Your task to perform on an android device: Add macbook to the cart on newegg.com Image 0: 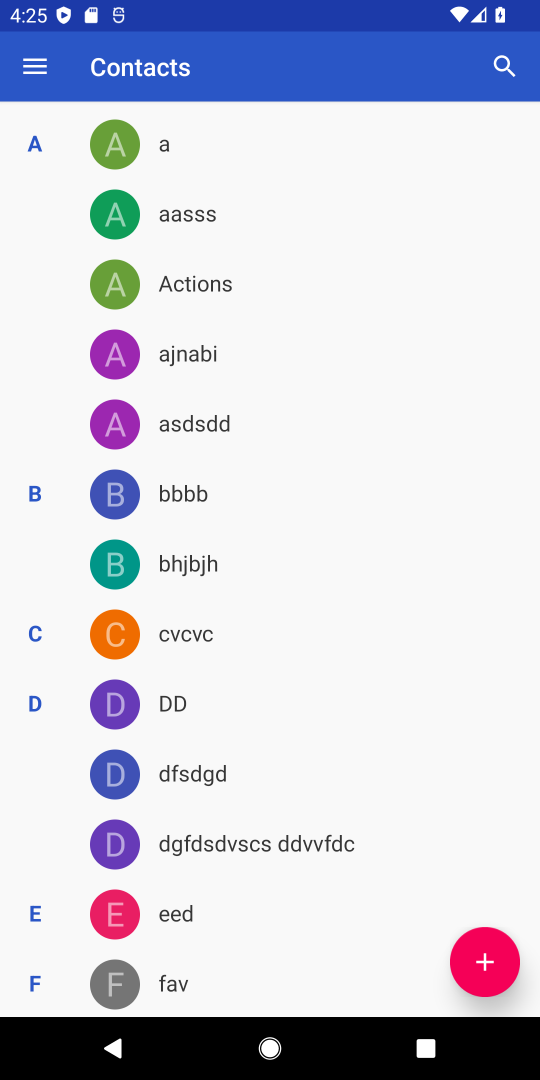
Step 0: press home button
Your task to perform on an android device: Add macbook to the cart on newegg.com Image 1: 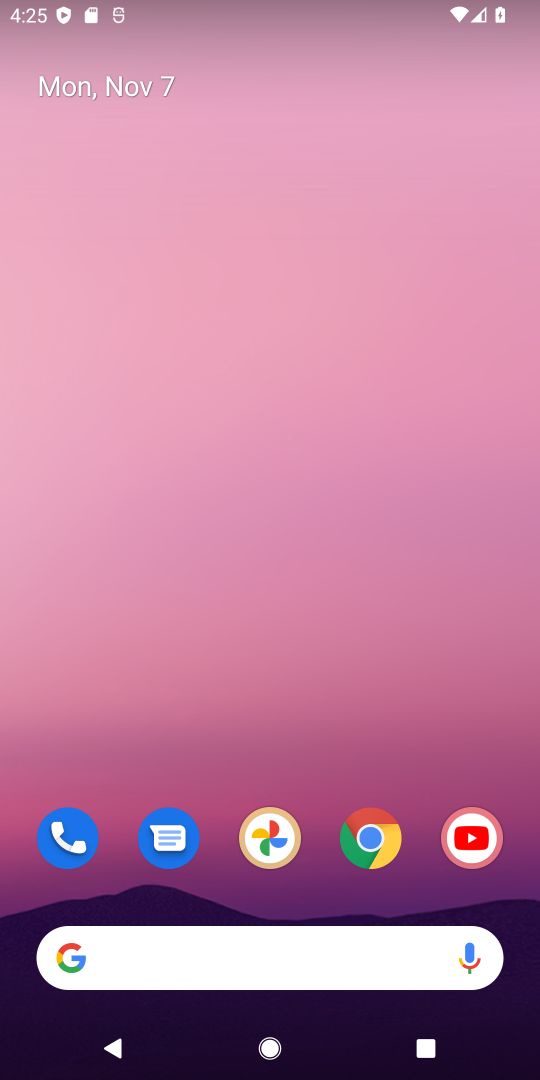
Step 1: click (378, 830)
Your task to perform on an android device: Add macbook to the cart on newegg.com Image 2: 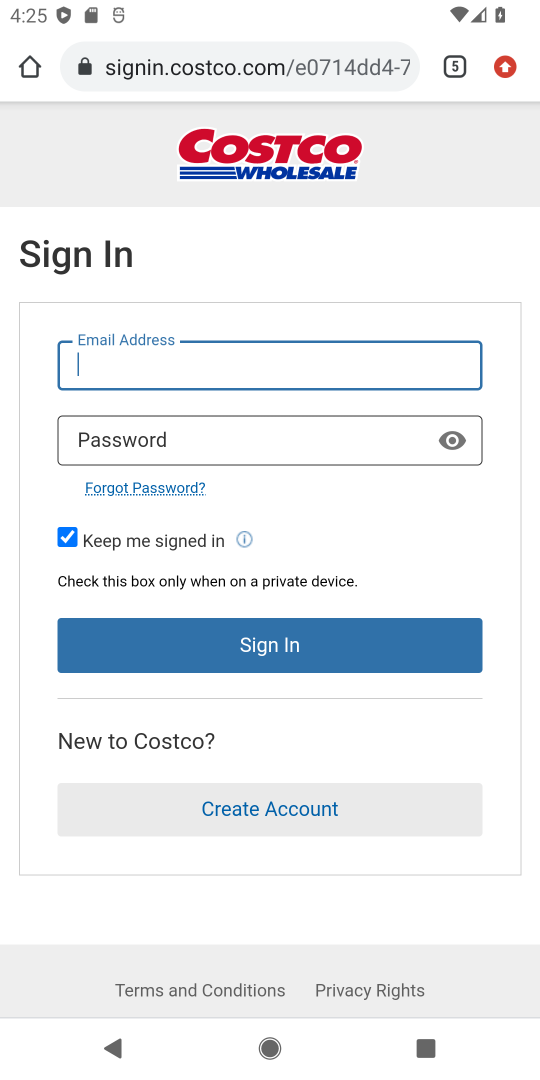
Step 2: click (460, 74)
Your task to perform on an android device: Add macbook to the cart on newegg.com Image 3: 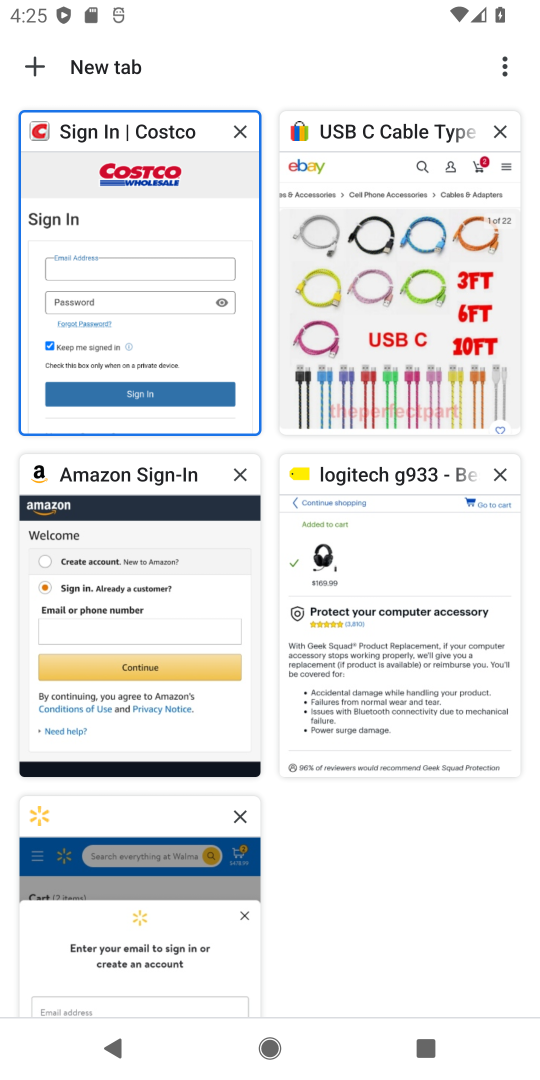
Step 3: click (27, 56)
Your task to perform on an android device: Add macbook to the cart on newegg.com Image 4: 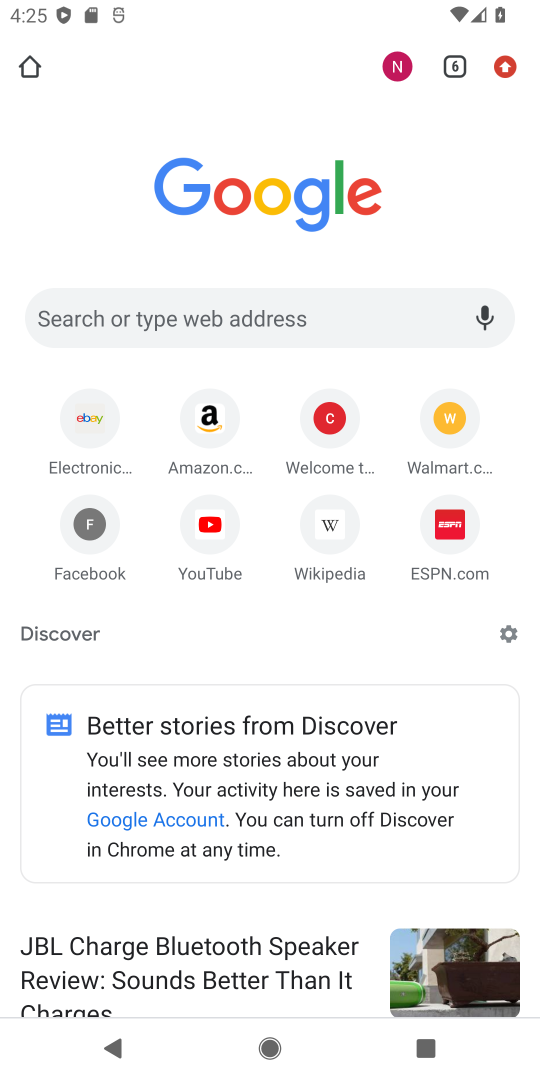
Step 4: click (277, 329)
Your task to perform on an android device: Add macbook to the cart on newegg.com Image 5: 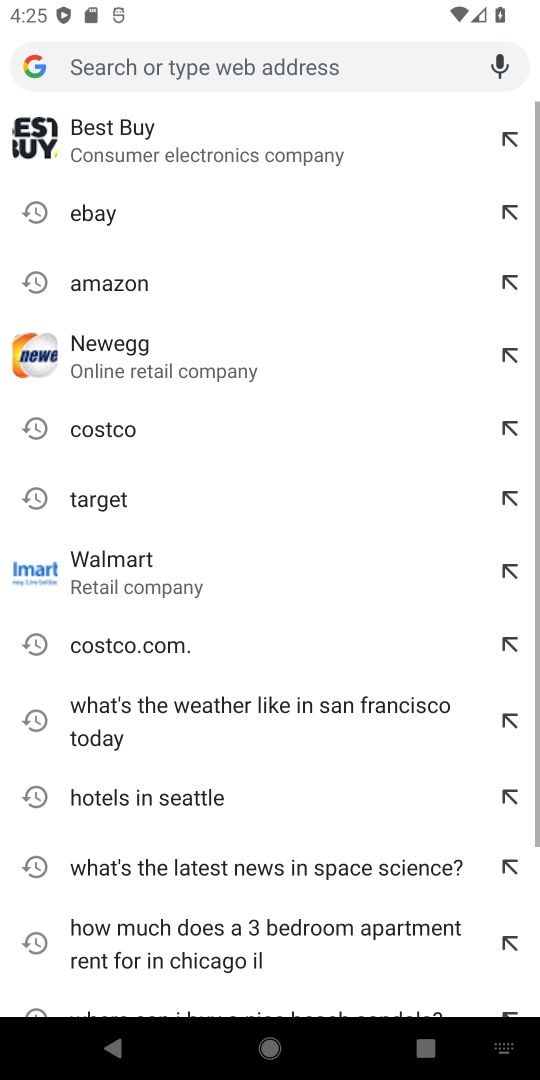
Step 5: type "newegg"
Your task to perform on an android device: Add macbook to the cart on newegg.com Image 6: 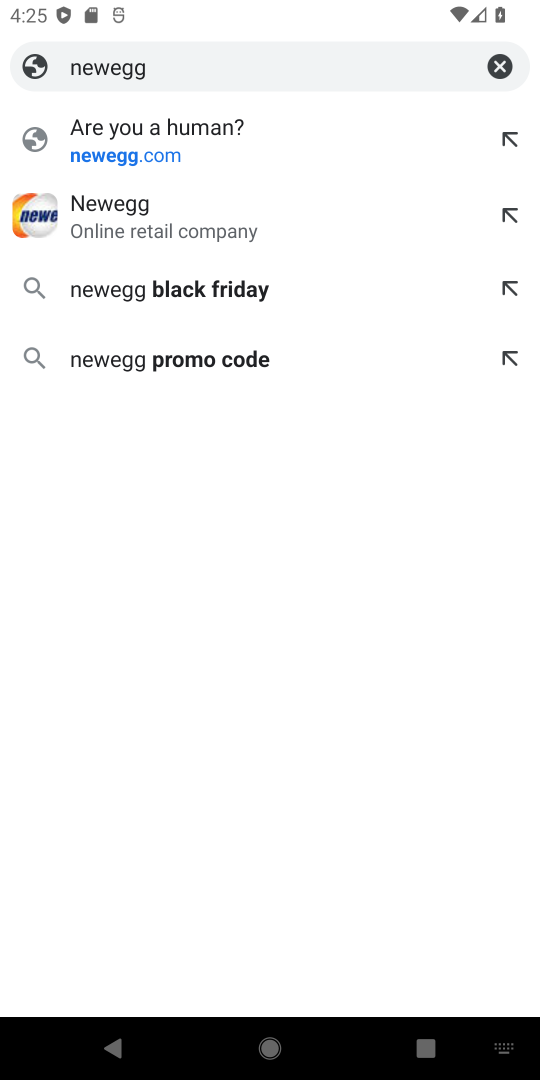
Step 6: click (145, 234)
Your task to perform on an android device: Add macbook to the cart on newegg.com Image 7: 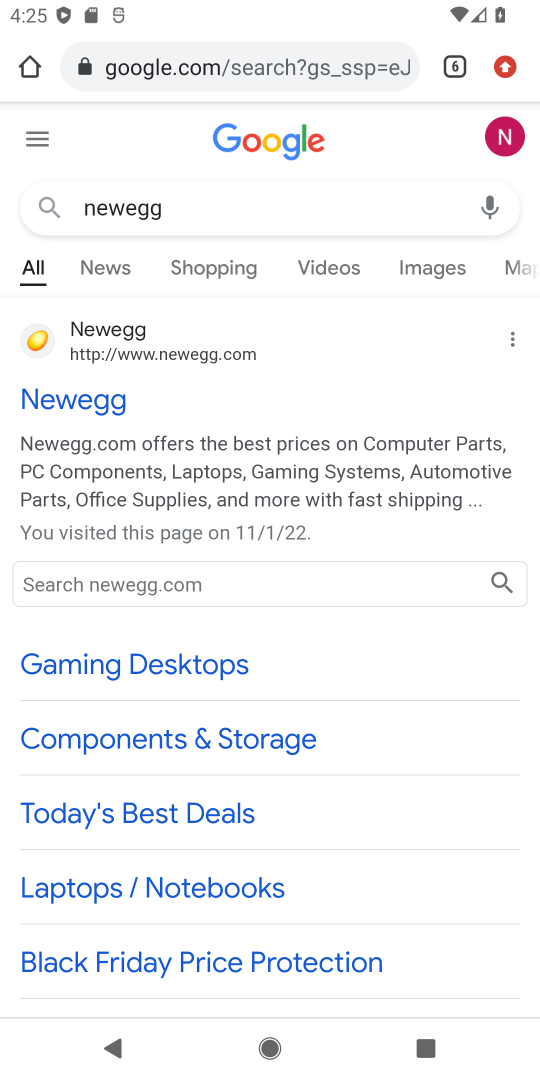
Step 7: click (110, 582)
Your task to perform on an android device: Add macbook to the cart on newegg.com Image 8: 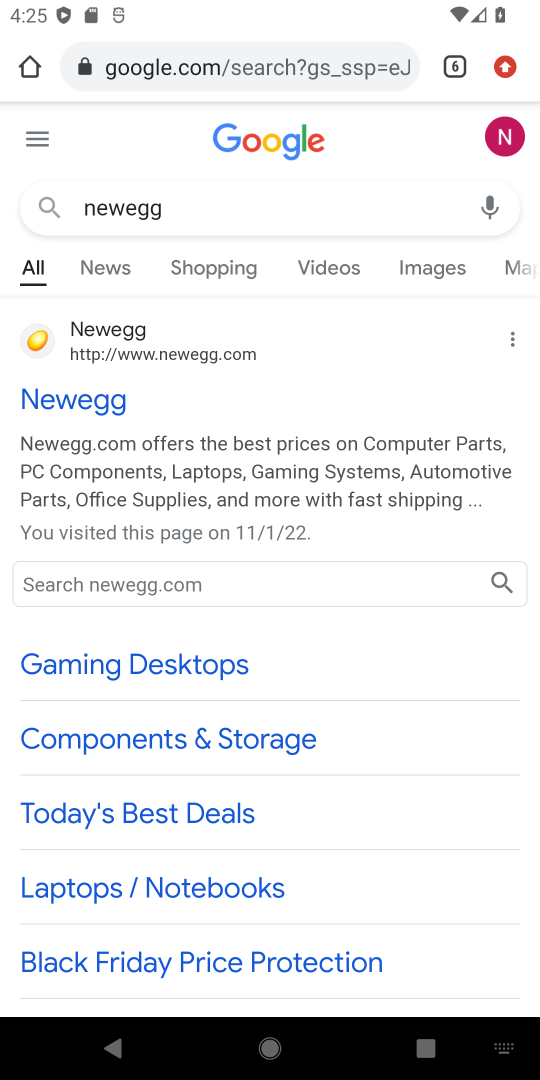
Step 8: type "macbook"
Your task to perform on an android device: Add macbook to the cart on newegg.com Image 9: 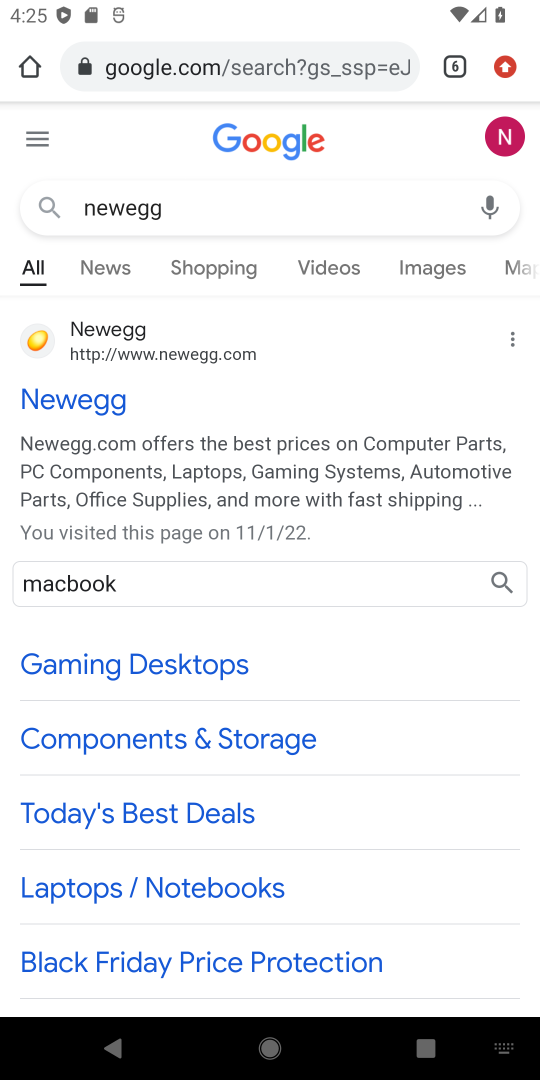
Step 9: click (496, 578)
Your task to perform on an android device: Add macbook to the cart on newegg.com Image 10: 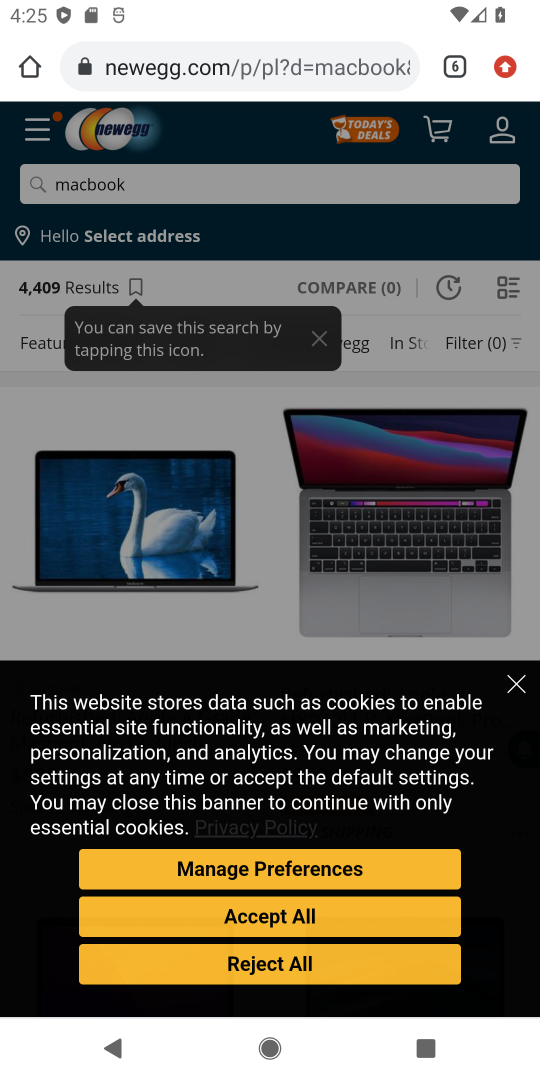
Step 10: click (143, 719)
Your task to perform on an android device: Add macbook to the cart on newegg.com Image 11: 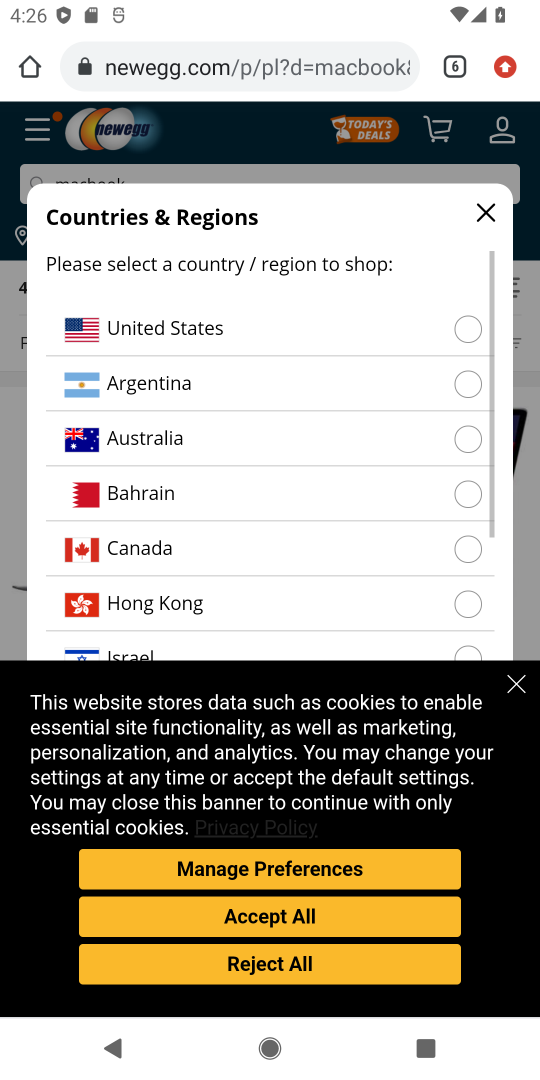
Step 11: click (518, 678)
Your task to perform on an android device: Add macbook to the cart on newegg.com Image 12: 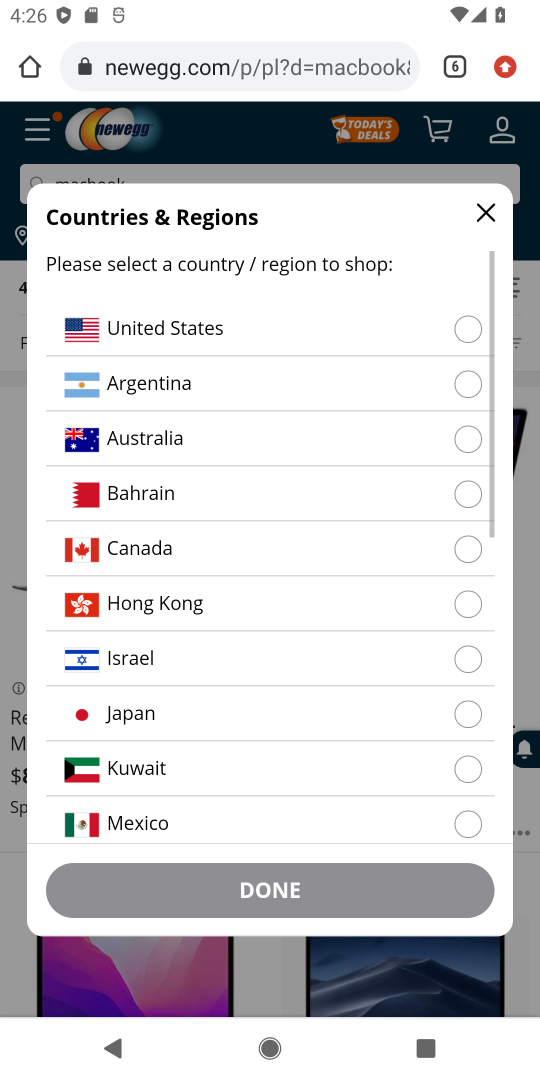
Step 12: click (472, 326)
Your task to perform on an android device: Add macbook to the cart on newegg.com Image 13: 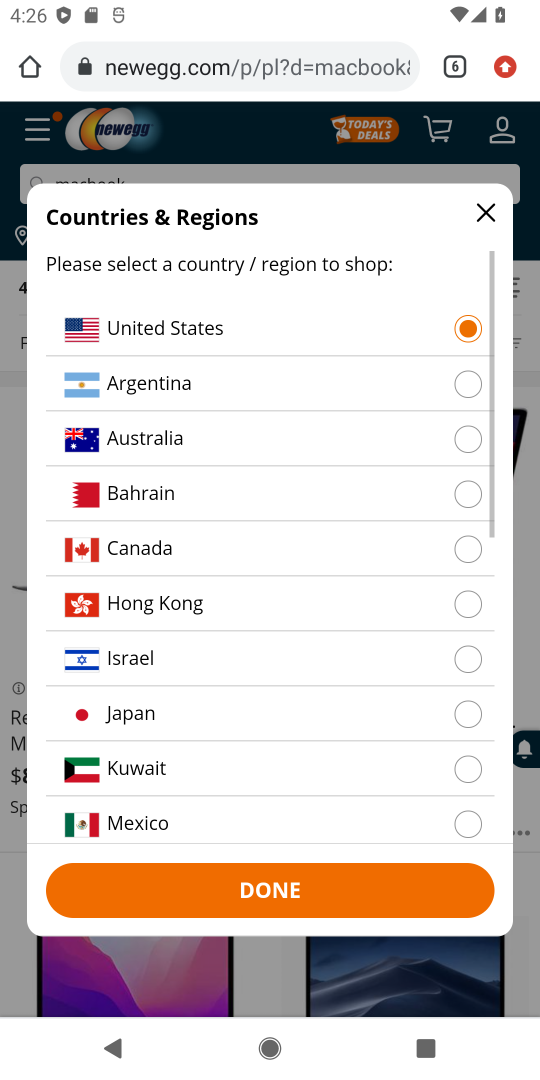
Step 13: click (261, 901)
Your task to perform on an android device: Add macbook to the cart on newegg.com Image 14: 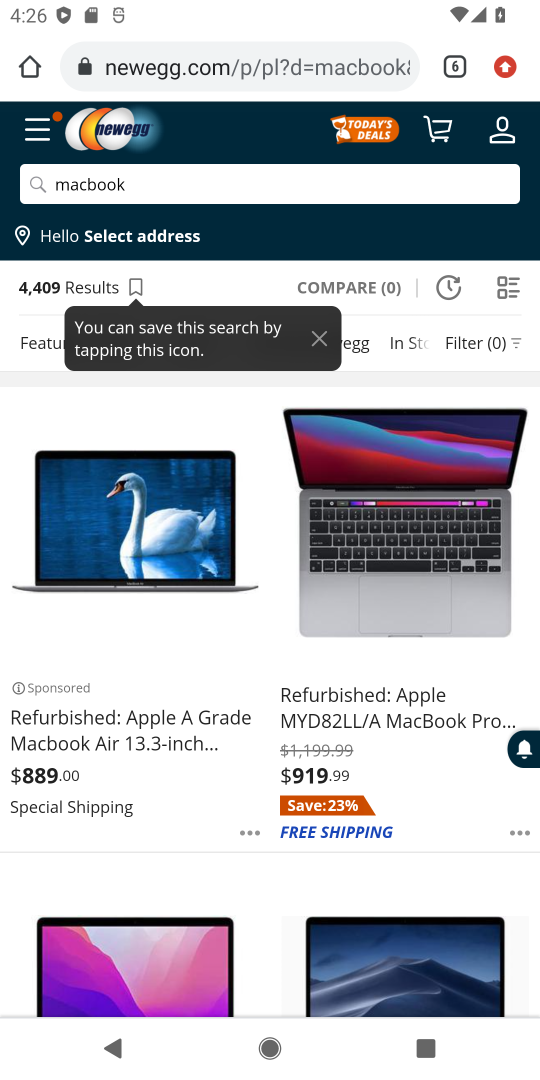
Step 14: click (175, 724)
Your task to perform on an android device: Add macbook to the cart on newegg.com Image 15: 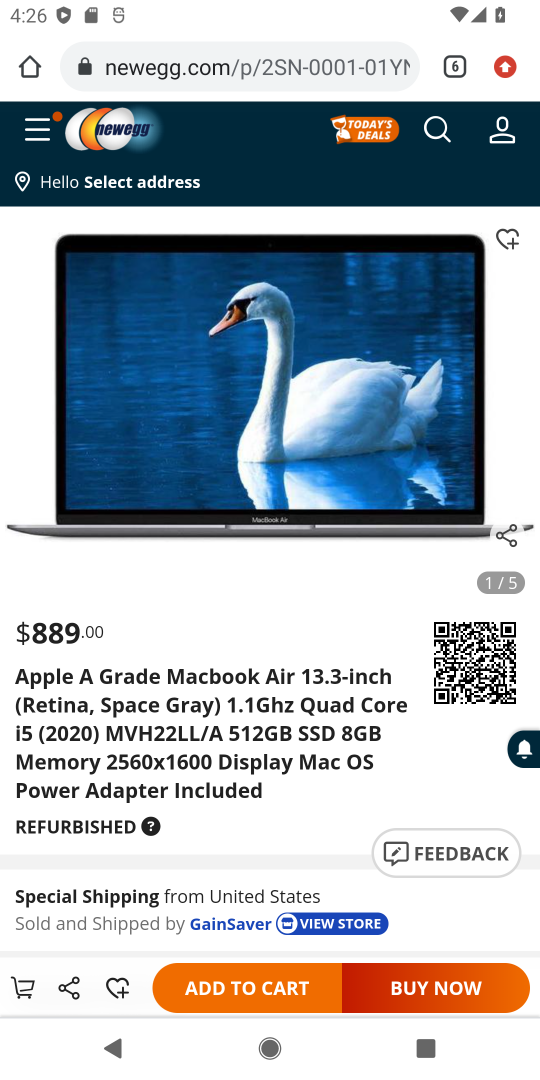
Step 15: click (264, 979)
Your task to perform on an android device: Add macbook to the cart on newegg.com Image 16: 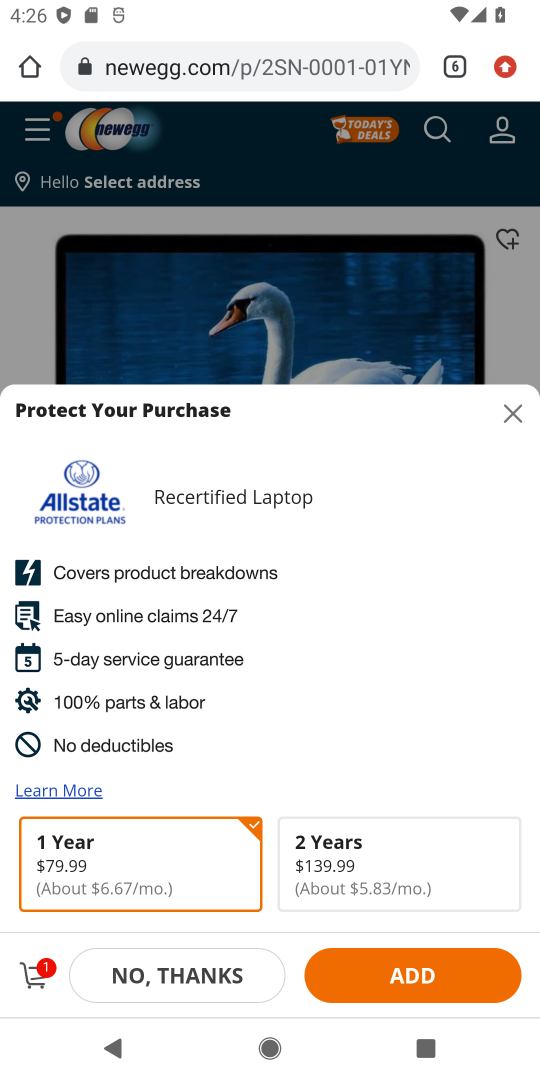
Step 16: click (231, 970)
Your task to perform on an android device: Add macbook to the cart on newegg.com Image 17: 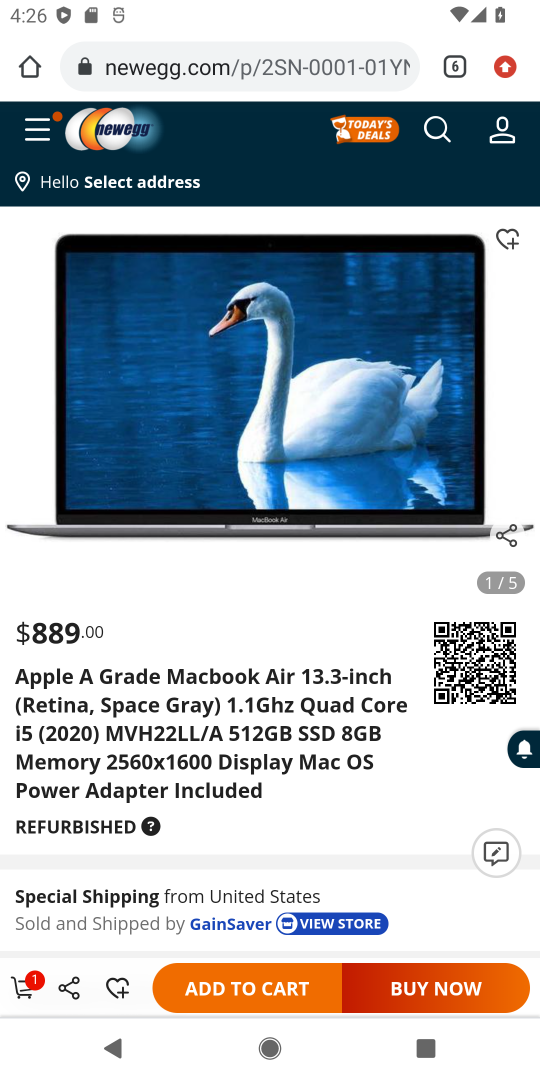
Step 17: task complete